Your task to perform on an android device: Open calendar and show me the fourth week of next month Image 0: 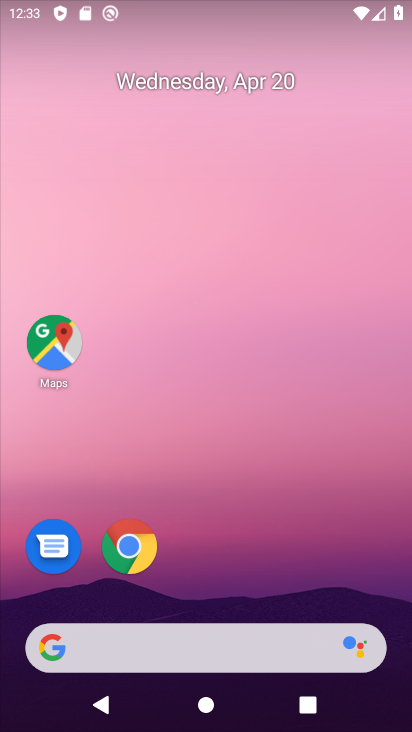
Step 0: drag from (210, 725) to (209, 155)
Your task to perform on an android device: Open calendar and show me the fourth week of next month Image 1: 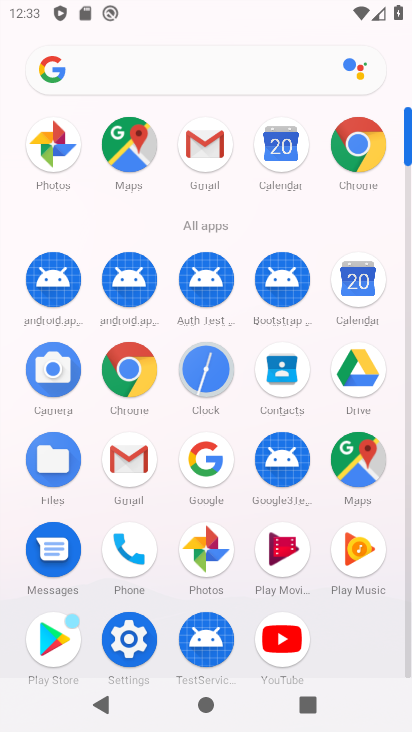
Step 1: click (365, 282)
Your task to perform on an android device: Open calendar and show me the fourth week of next month Image 2: 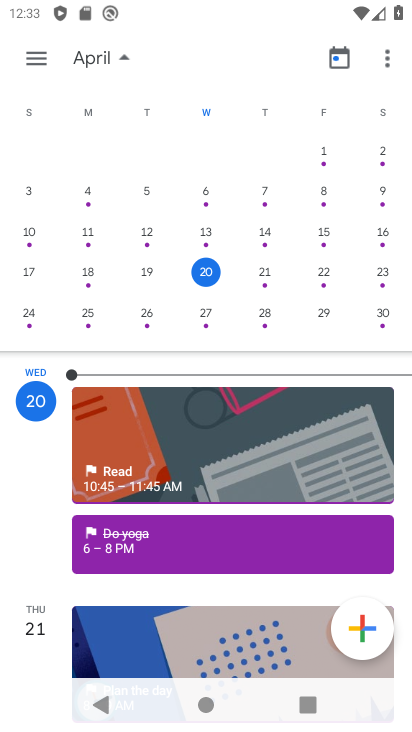
Step 2: drag from (349, 252) to (14, 283)
Your task to perform on an android device: Open calendar and show me the fourth week of next month Image 3: 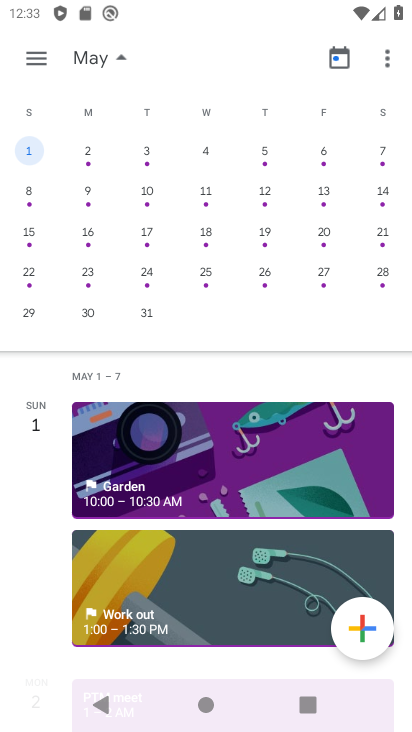
Step 3: click (87, 266)
Your task to perform on an android device: Open calendar and show me the fourth week of next month Image 4: 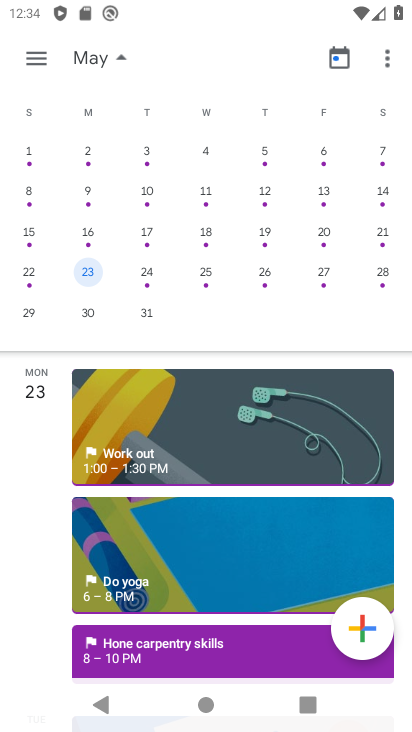
Step 4: task complete